Your task to perform on an android device: turn on the 12-hour format for clock Image 0: 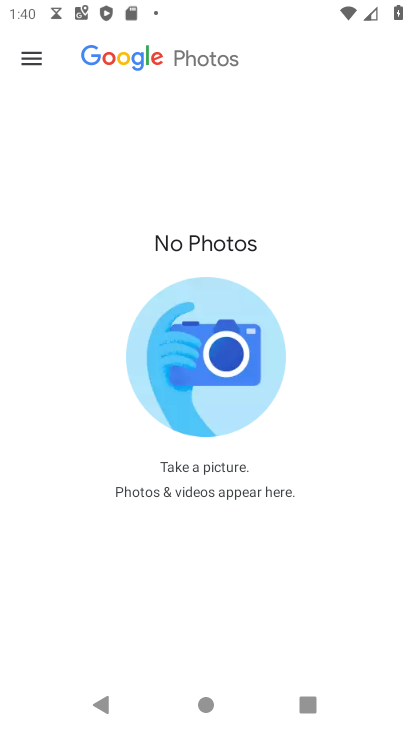
Step 0: press home button
Your task to perform on an android device: turn on the 12-hour format for clock Image 1: 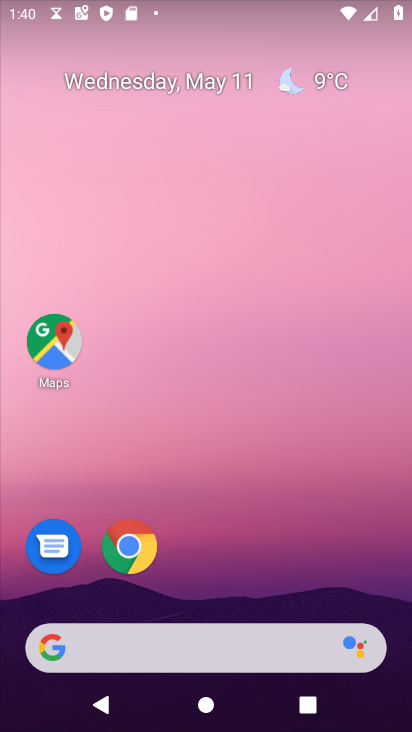
Step 1: drag from (330, 611) to (328, 87)
Your task to perform on an android device: turn on the 12-hour format for clock Image 2: 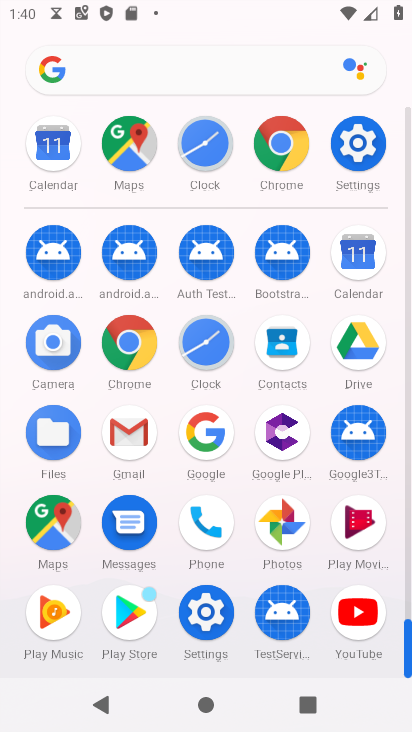
Step 2: click (205, 362)
Your task to perform on an android device: turn on the 12-hour format for clock Image 3: 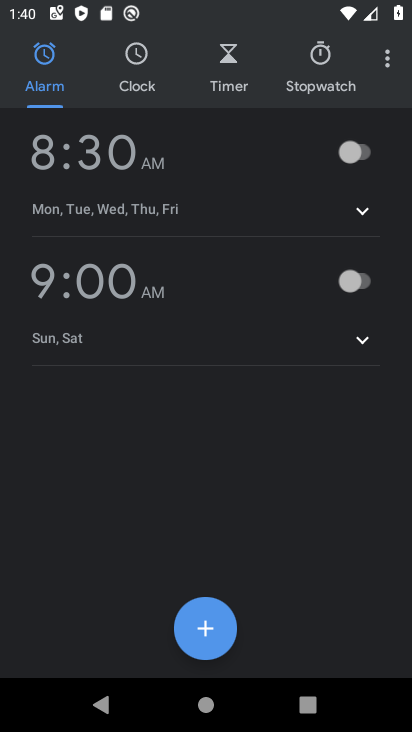
Step 3: click (382, 48)
Your task to perform on an android device: turn on the 12-hour format for clock Image 4: 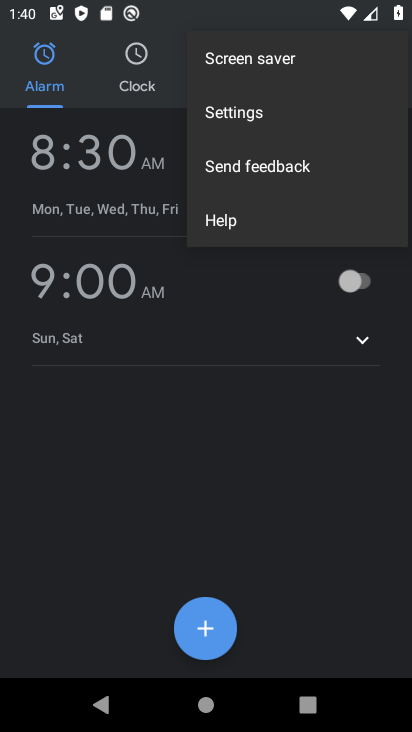
Step 4: click (280, 115)
Your task to perform on an android device: turn on the 12-hour format for clock Image 5: 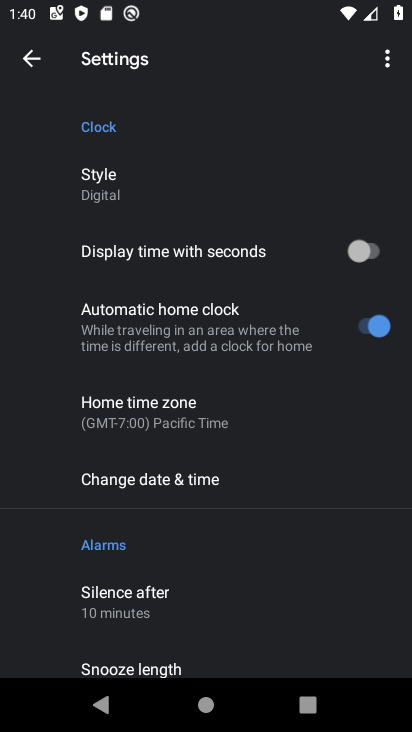
Step 5: click (183, 485)
Your task to perform on an android device: turn on the 12-hour format for clock Image 6: 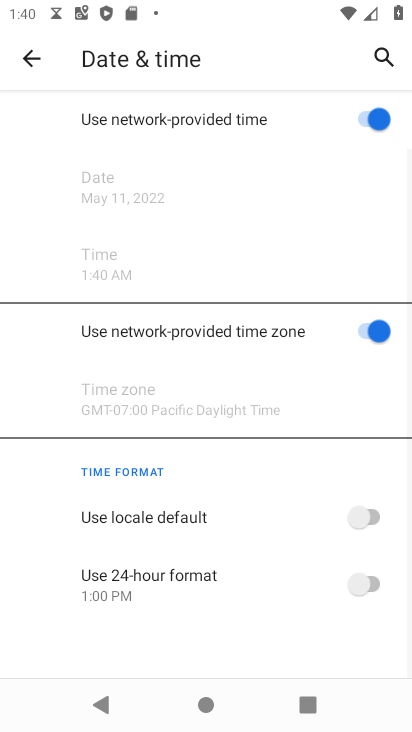
Step 6: task complete